Your task to perform on an android device: open chrome and create a bookmark for the current page Image 0: 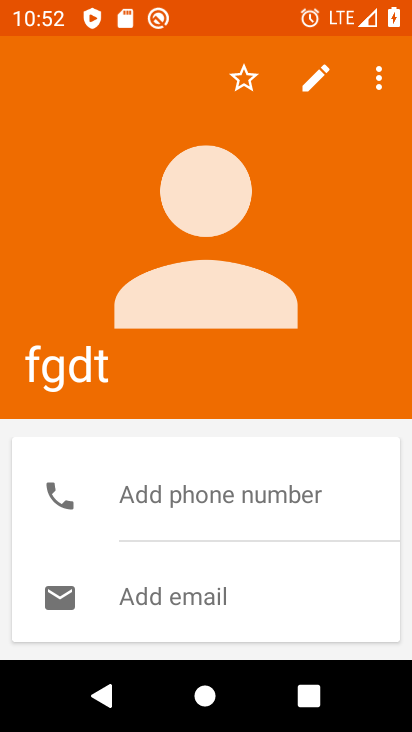
Step 0: drag from (206, 601) to (265, 197)
Your task to perform on an android device: open chrome and create a bookmark for the current page Image 1: 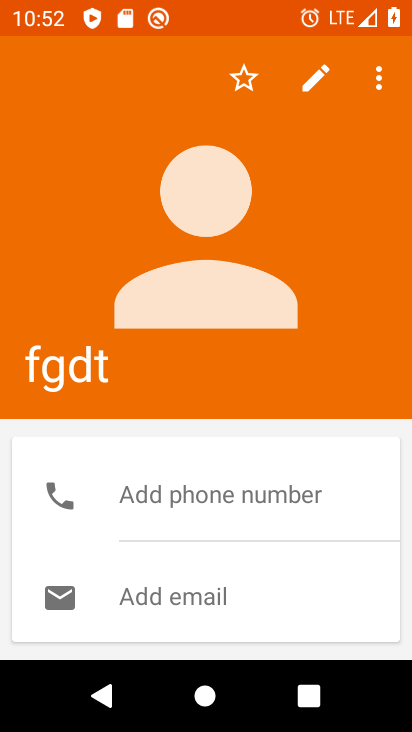
Step 1: press home button
Your task to perform on an android device: open chrome and create a bookmark for the current page Image 2: 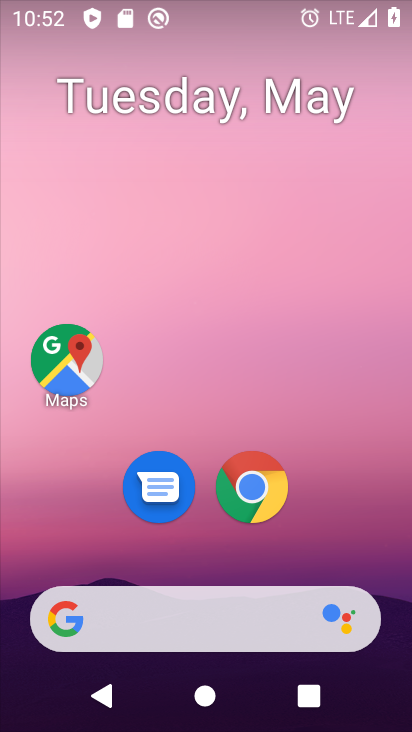
Step 2: click (242, 483)
Your task to perform on an android device: open chrome and create a bookmark for the current page Image 3: 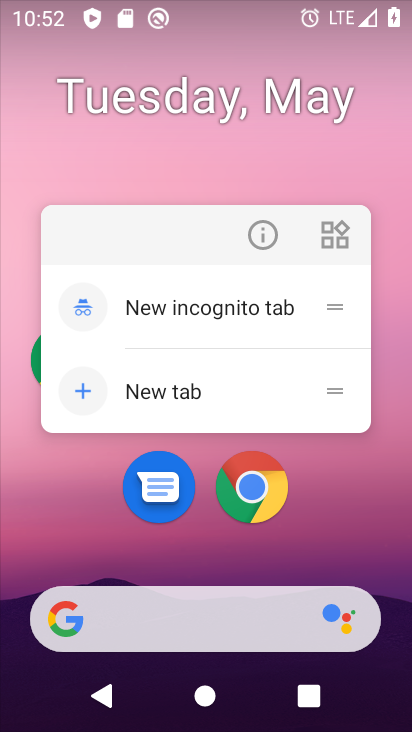
Step 3: click (279, 238)
Your task to perform on an android device: open chrome and create a bookmark for the current page Image 4: 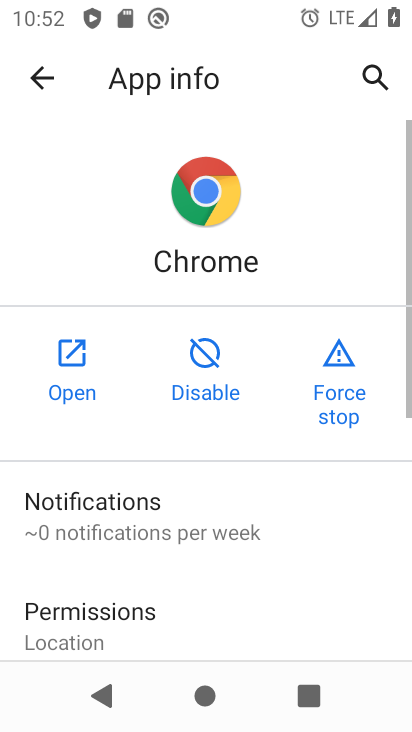
Step 4: click (76, 374)
Your task to perform on an android device: open chrome and create a bookmark for the current page Image 5: 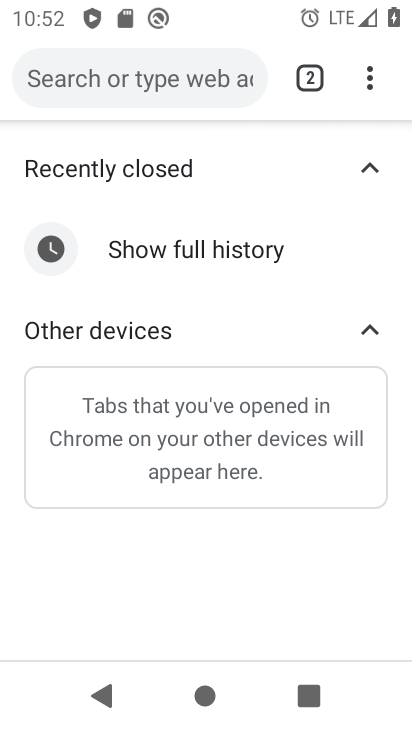
Step 5: click (369, 89)
Your task to perform on an android device: open chrome and create a bookmark for the current page Image 6: 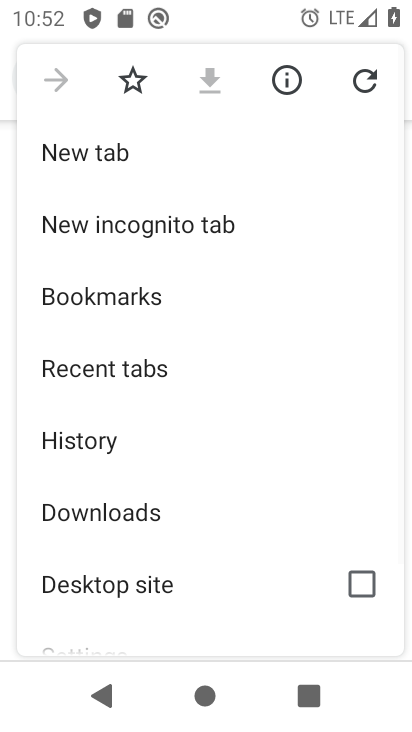
Step 6: drag from (157, 551) to (205, 178)
Your task to perform on an android device: open chrome and create a bookmark for the current page Image 7: 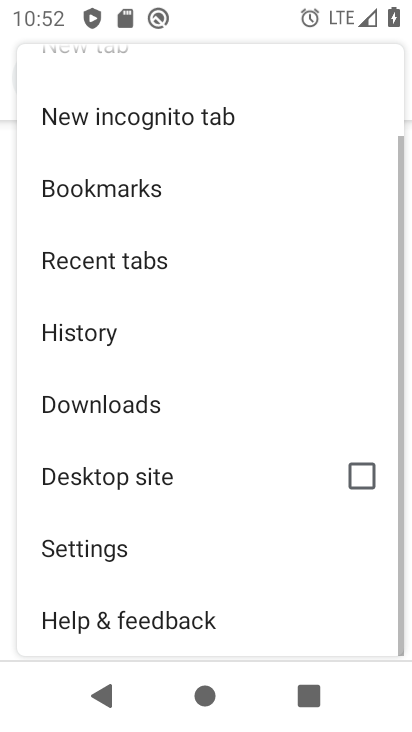
Step 7: click (172, 165)
Your task to perform on an android device: open chrome and create a bookmark for the current page Image 8: 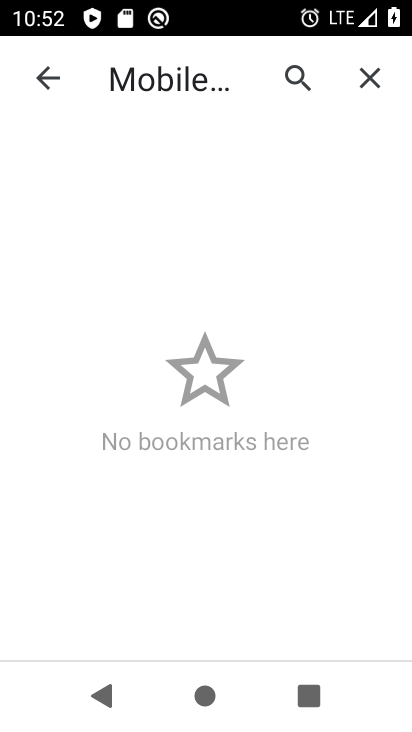
Step 8: click (362, 83)
Your task to perform on an android device: open chrome and create a bookmark for the current page Image 9: 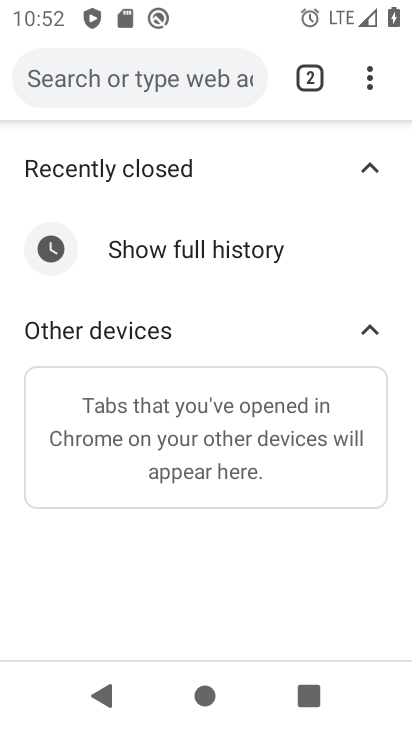
Step 9: click (373, 71)
Your task to perform on an android device: open chrome and create a bookmark for the current page Image 10: 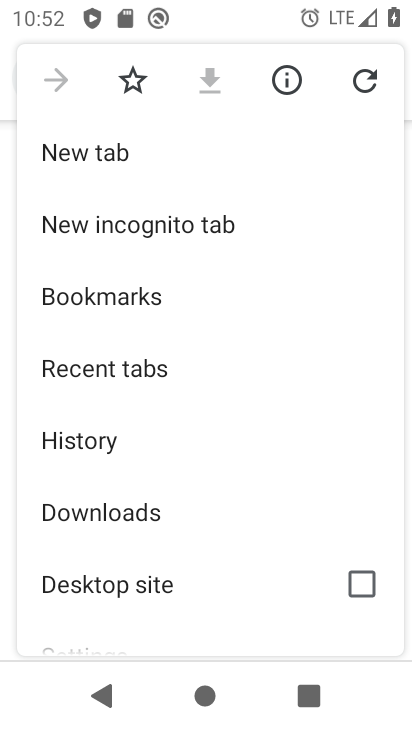
Step 10: press back button
Your task to perform on an android device: open chrome and create a bookmark for the current page Image 11: 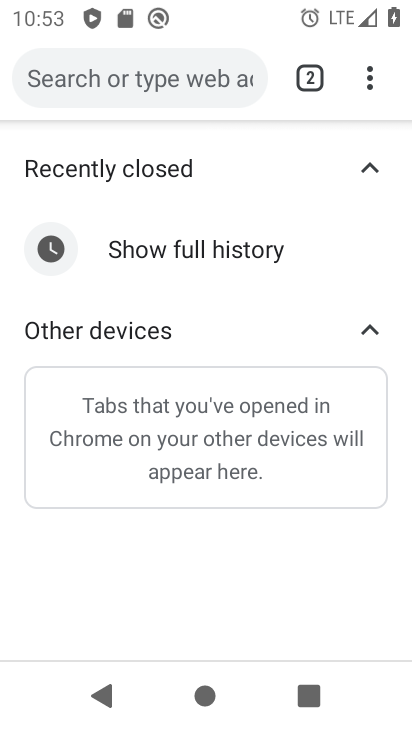
Step 11: click (151, 239)
Your task to perform on an android device: open chrome and create a bookmark for the current page Image 12: 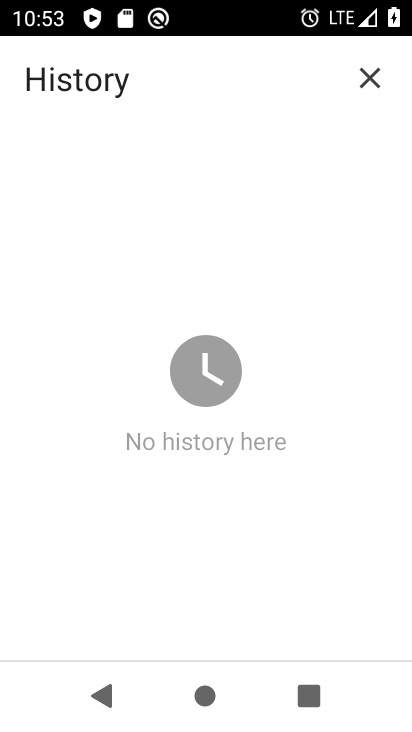
Step 12: click (374, 67)
Your task to perform on an android device: open chrome and create a bookmark for the current page Image 13: 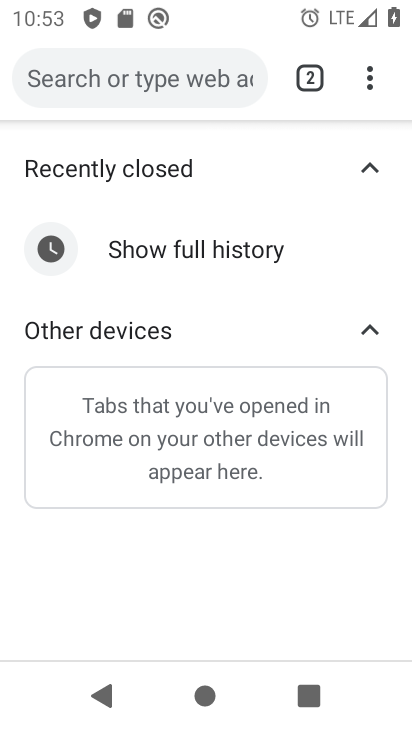
Step 13: click (298, 85)
Your task to perform on an android device: open chrome and create a bookmark for the current page Image 14: 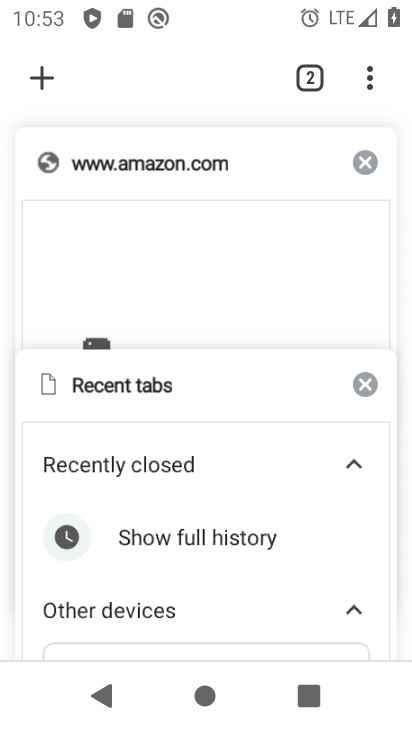
Step 14: click (240, 252)
Your task to perform on an android device: open chrome and create a bookmark for the current page Image 15: 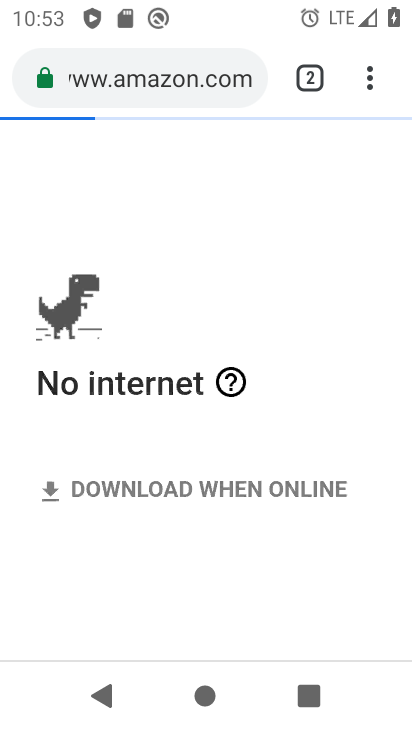
Step 15: click (372, 73)
Your task to perform on an android device: open chrome and create a bookmark for the current page Image 16: 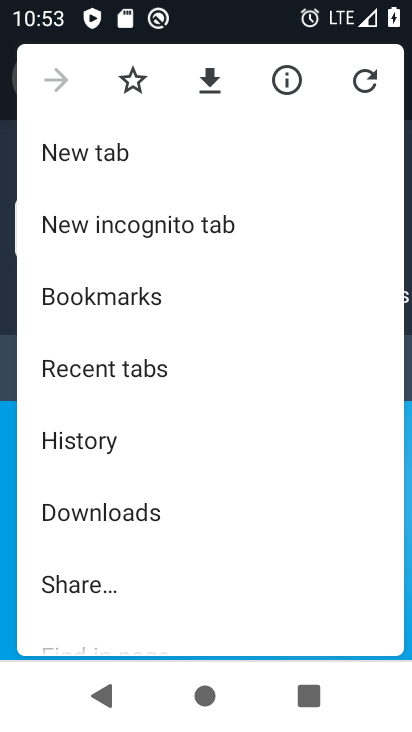
Step 16: click (116, 89)
Your task to perform on an android device: open chrome and create a bookmark for the current page Image 17: 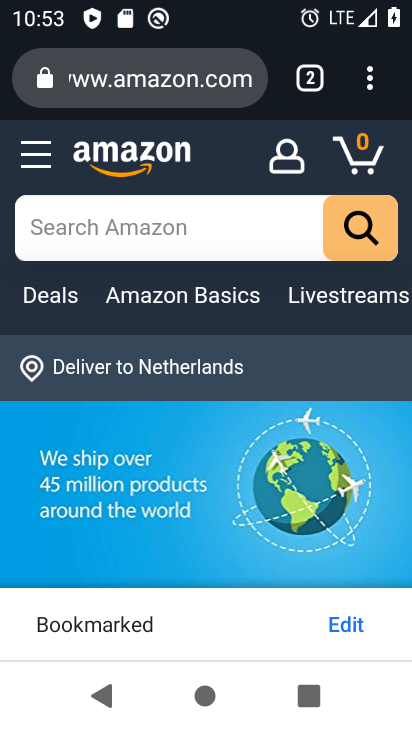
Step 17: task complete